Your task to perform on an android device: change the clock style Image 0: 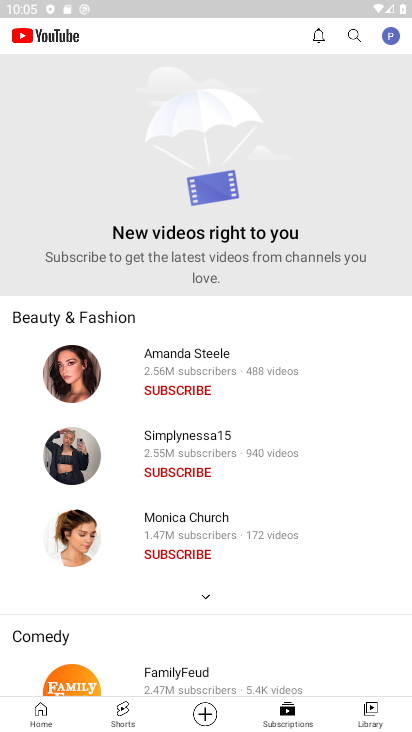
Step 0: press home button
Your task to perform on an android device: change the clock style Image 1: 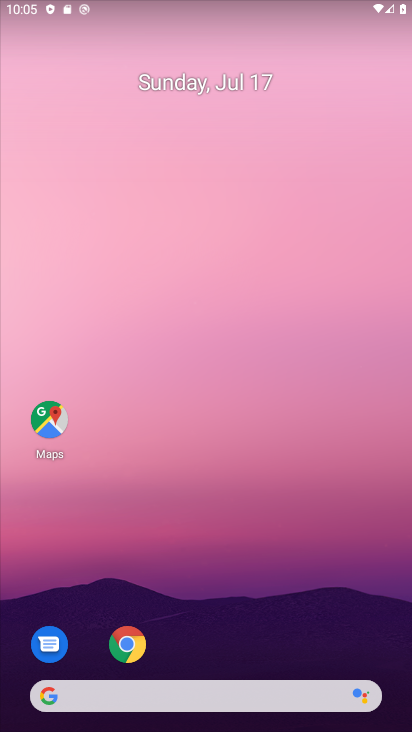
Step 1: drag from (292, 623) to (228, 2)
Your task to perform on an android device: change the clock style Image 2: 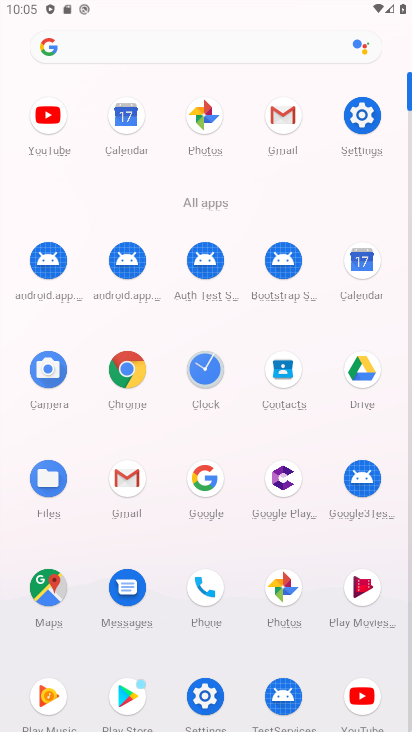
Step 2: click (197, 374)
Your task to perform on an android device: change the clock style Image 3: 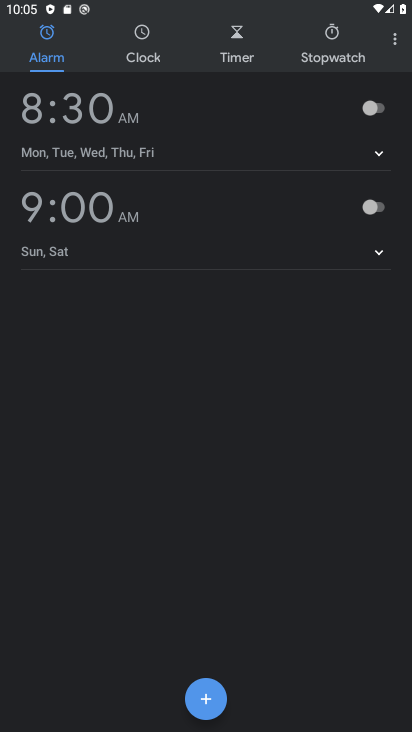
Step 3: click (392, 47)
Your task to perform on an android device: change the clock style Image 4: 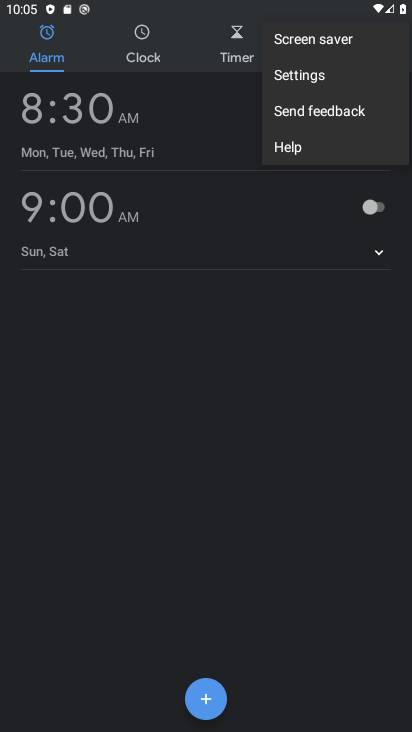
Step 4: click (323, 76)
Your task to perform on an android device: change the clock style Image 5: 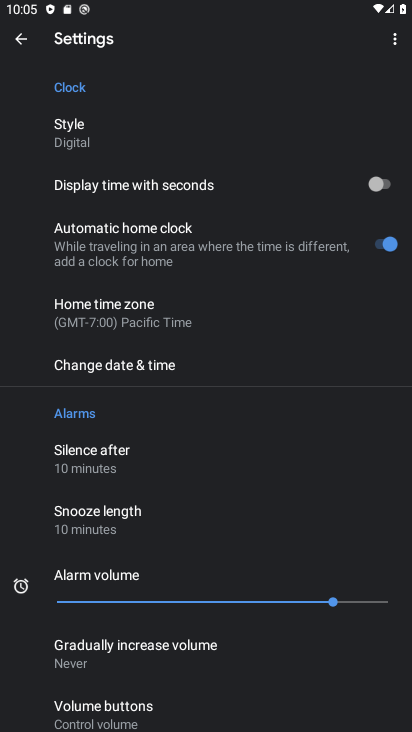
Step 5: click (93, 132)
Your task to perform on an android device: change the clock style Image 6: 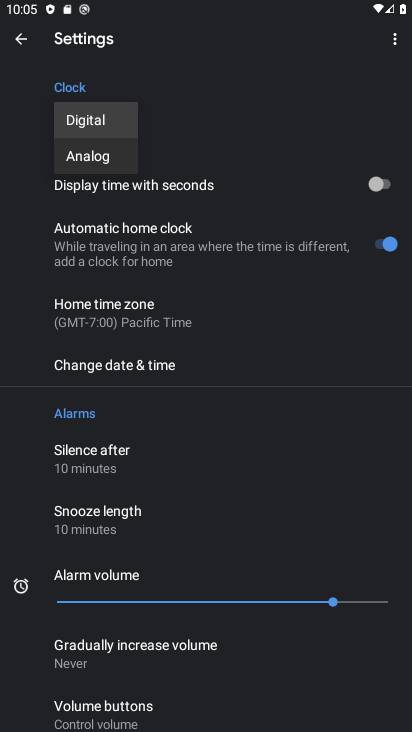
Step 6: click (96, 172)
Your task to perform on an android device: change the clock style Image 7: 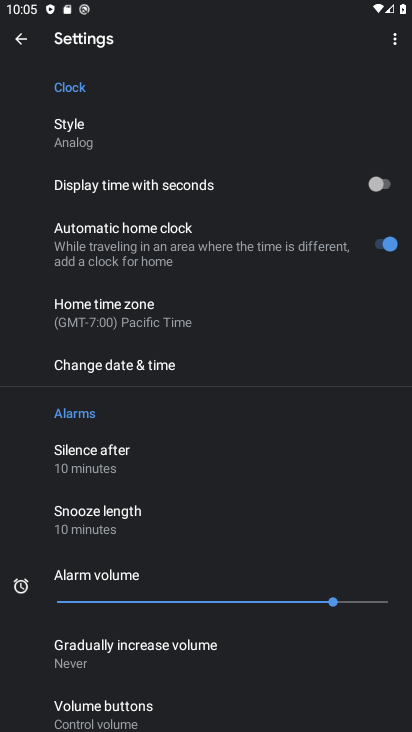
Step 7: task complete